Your task to perform on an android device: visit the assistant section in the google photos Image 0: 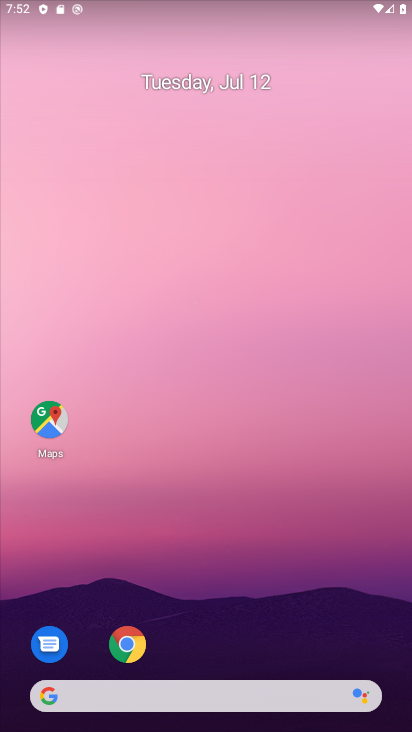
Step 0: drag from (203, 647) to (189, 48)
Your task to perform on an android device: visit the assistant section in the google photos Image 1: 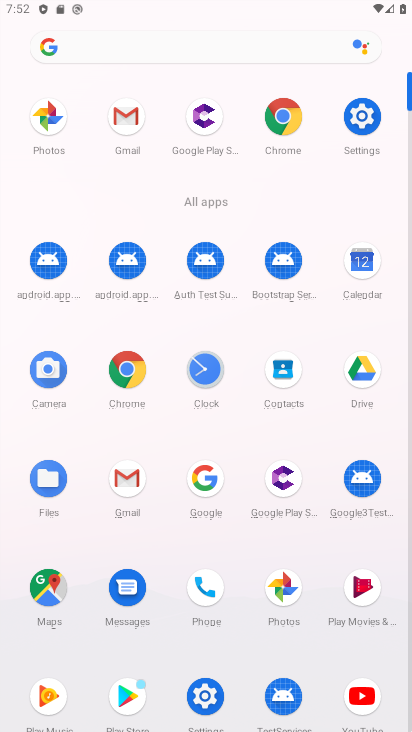
Step 1: click (288, 584)
Your task to perform on an android device: visit the assistant section in the google photos Image 2: 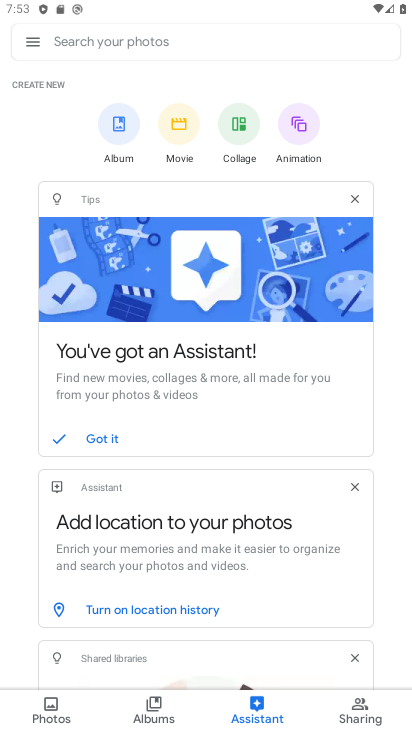
Step 2: task complete